Your task to perform on an android device: Go to accessibility settings Image 0: 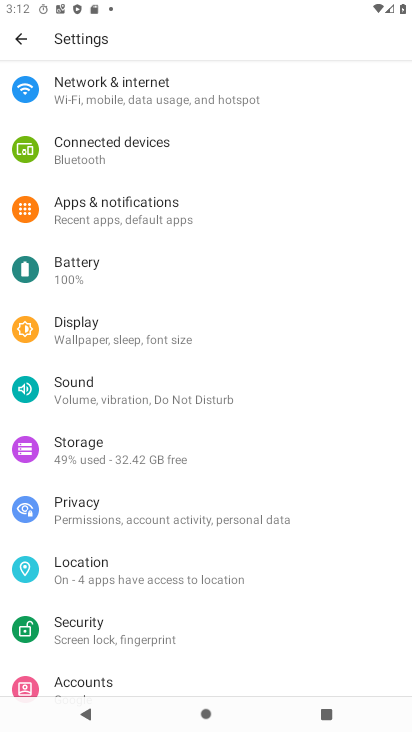
Step 0: drag from (134, 622) to (137, 472)
Your task to perform on an android device: Go to accessibility settings Image 1: 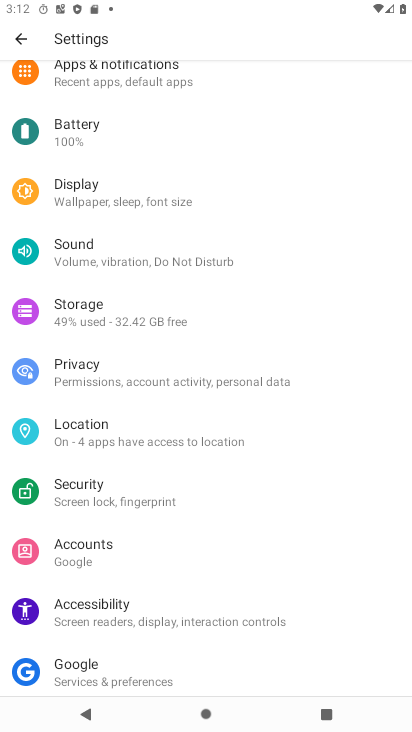
Step 1: click (85, 610)
Your task to perform on an android device: Go to accessibility settings Image 2: 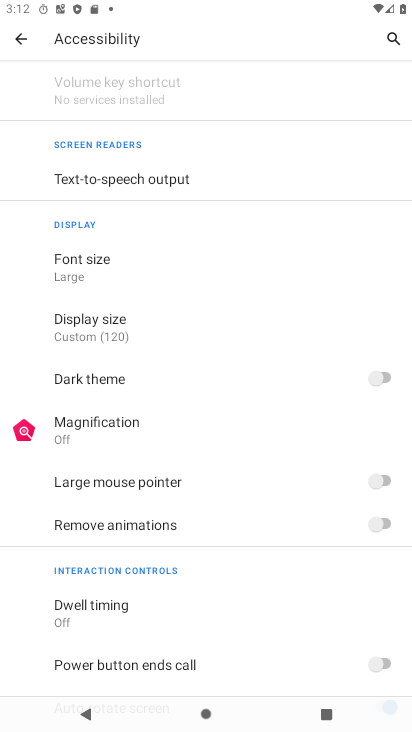
Step 2: task complete